Your task to perform on an android device: uninstall "Google Duo" Image 0: 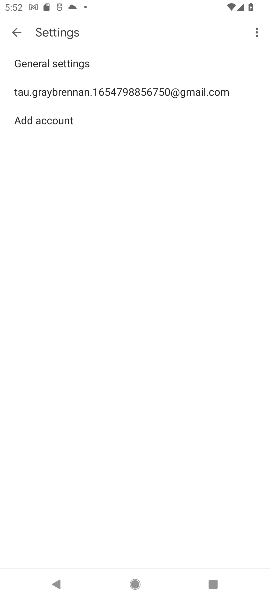
Step 0: press home button
Your task to perform on an android device: uninstall "Google Duo" Image 1: 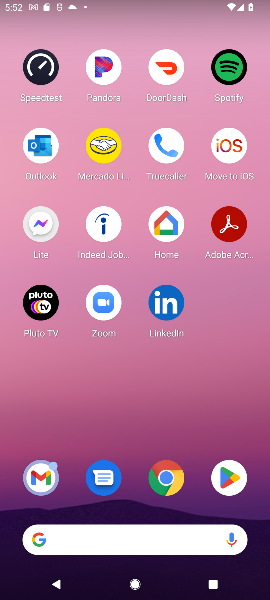
Step 1: click (233, 478)
Your task to perform on an android device: uninstall "Google Duo" Image 2: 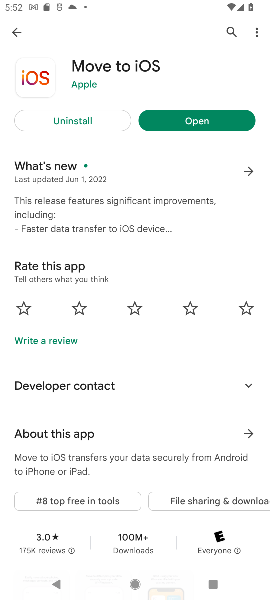
Step 2: click (229, 36)
Your task to perform on an android device: uninstall "Google Duo" Image 3: 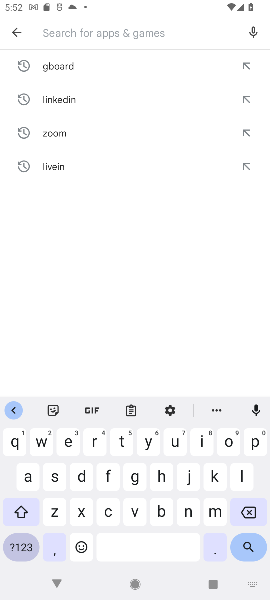
Step 3: click (77, 484)
Your task to perform on an android device: uninstall "Google Duo" Image 4: 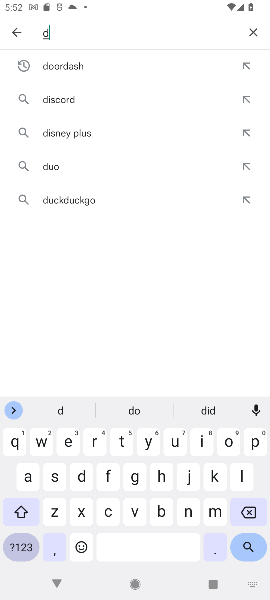
Step 4: click (176, 441)
Your task to perform on an android device: uninstall "Google Duo" Image 5: 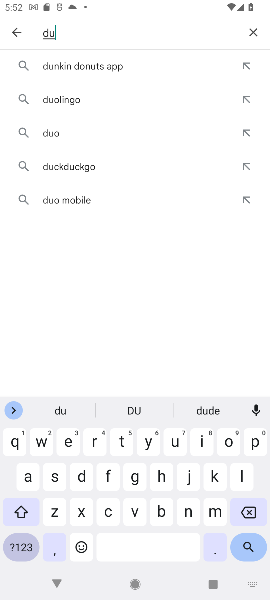
Step 5: click (60, 132)
Your task to perform on an android device: uninstall "Google Duo" Image 6: 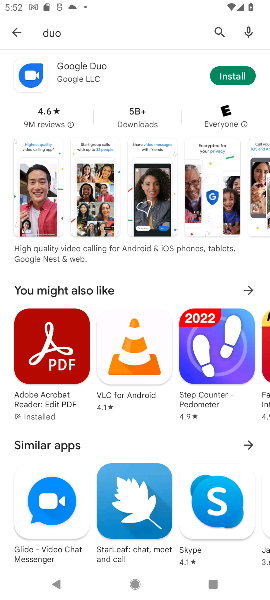
Step 6: click (35, 77)
Your task to perform on an android device: uninstall "Google Duo" Image 7: 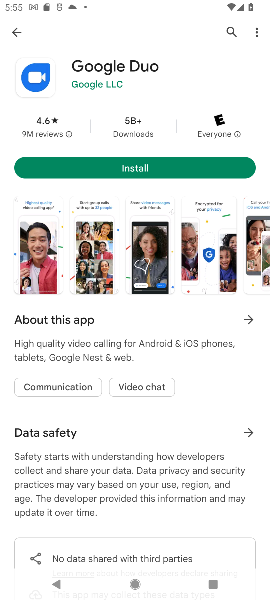
Step 7: task complete